Your task to perform on an android device: toggle data saver in the chrome app Image 0: 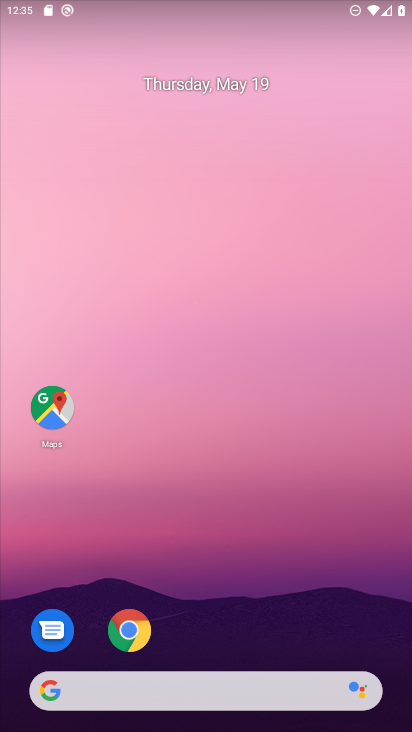
Step 0: drag from (157, 648) to (219, 259)
Your task to perform on an android device: toggle data saver in the chrome app Image 1: 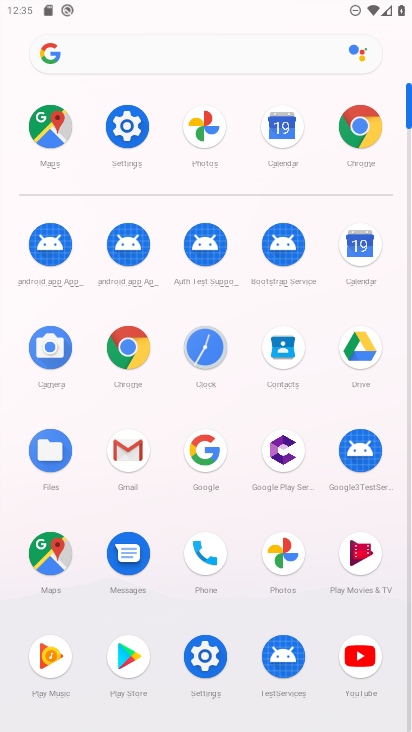
Step 1: click (132, 357)
Your task to perform on an android device: toggle data saver in the chrome app Image 2: 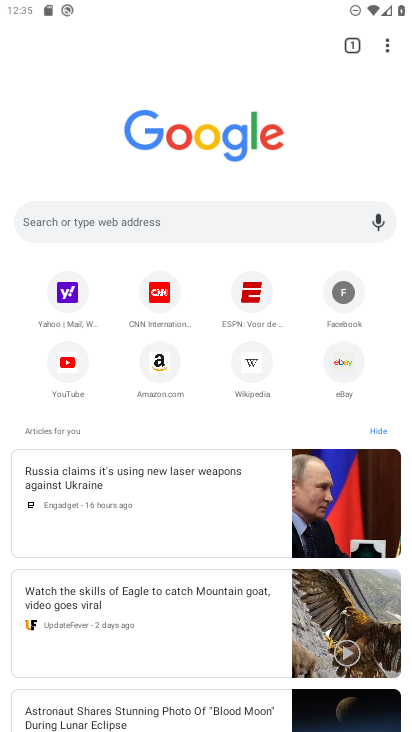
Step 2: click (389, 38)
Your task to perform on an android device: toggle data saver in the chrome app Image 3: 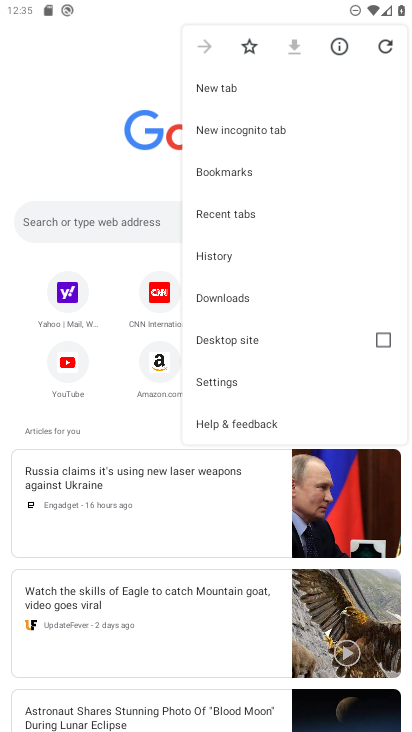
Step 3: click (228, 384)
Your task to perform on an android device: toggle data saver in the chrome app Image 4: 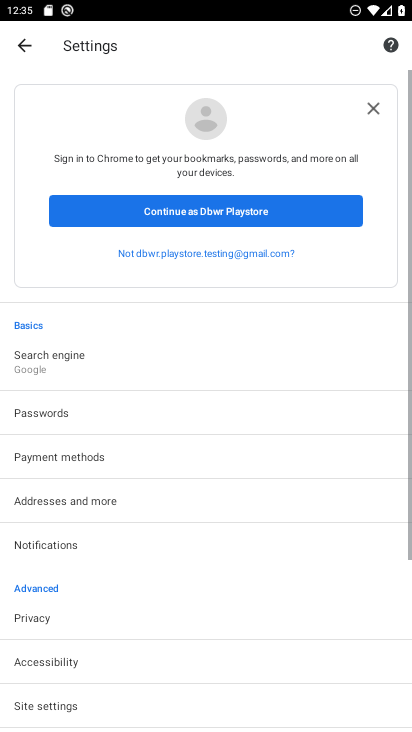
Step 4: drag from (224, 590) to (266, 292)
Your task to perform on an android device: toggle data saver in the chrome app Image 5: 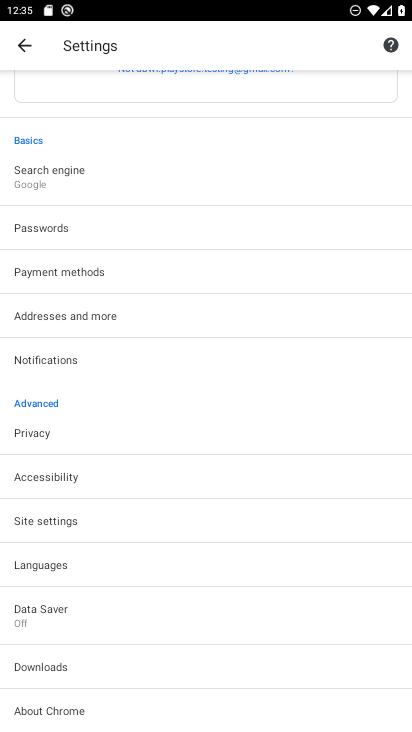
Step 5: click (46, 630)
Your task to perform on an android device: toggle data saver in the chrome app Image 6: 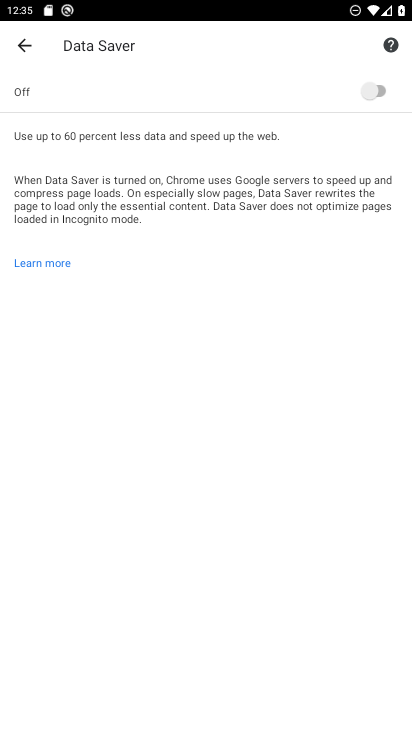
Step 6: click (370, 88)
Your task to perform on an android device: toggle data saver in the chrome app Image 7: 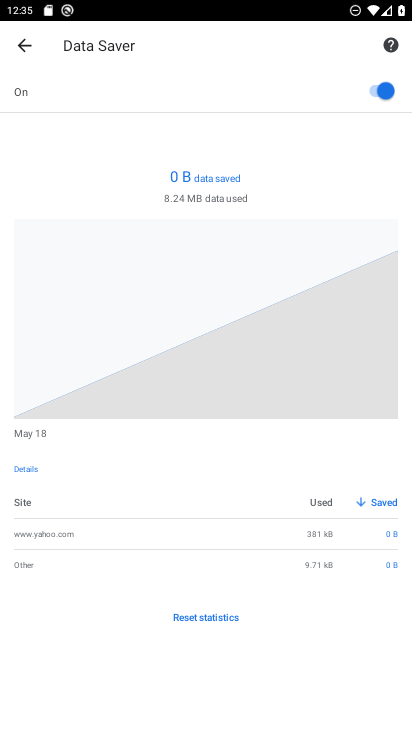
Step 7: task complete